Your task to perform on an android device: Open the map Image 0: 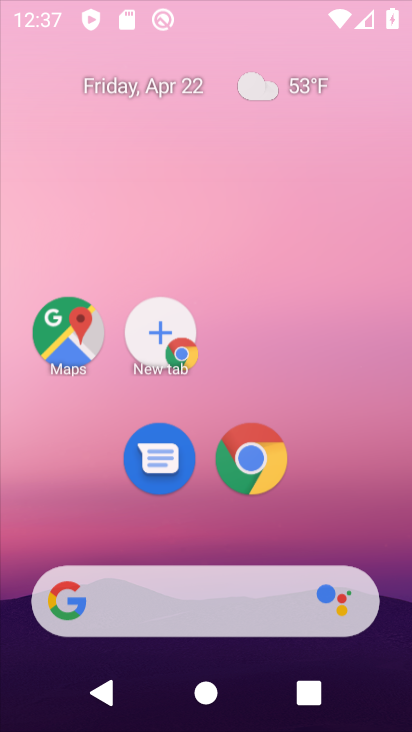
Step 0: click (262, 3)
Your task to perform on an android device: Open the map Image 1: 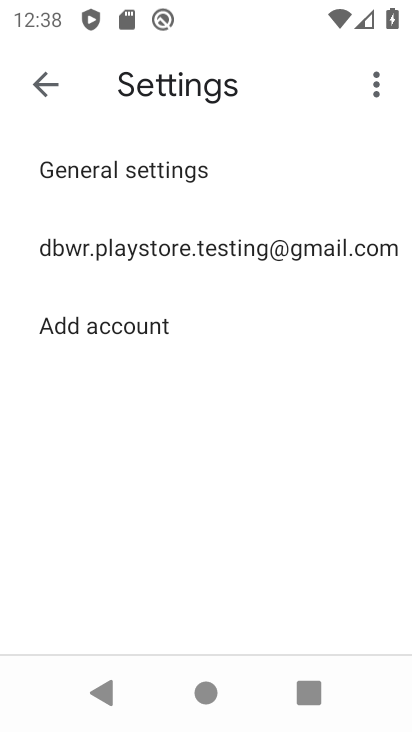
Step 1: press back button
Your task to perform on an android device: Open the map Image 2: 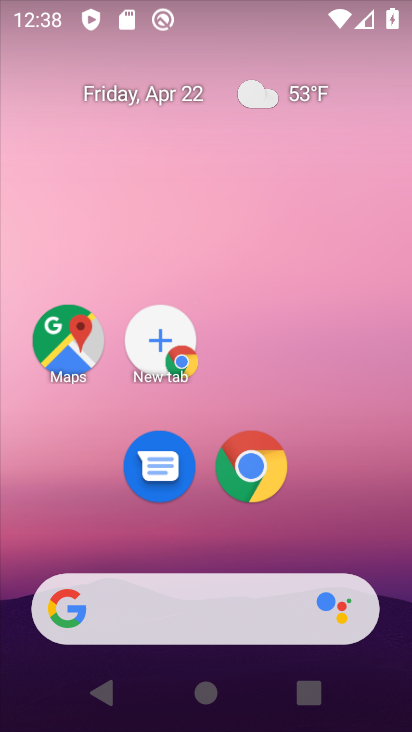
Step 2: click (63, 329)
Your task to perform on an android device: Open the map Image 3: 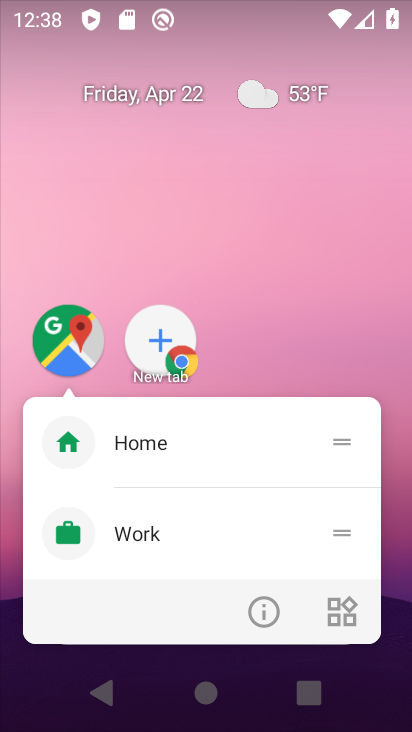
Step 3: click (65, 351)
Your task to perform on an android device: Open the map Image 4: 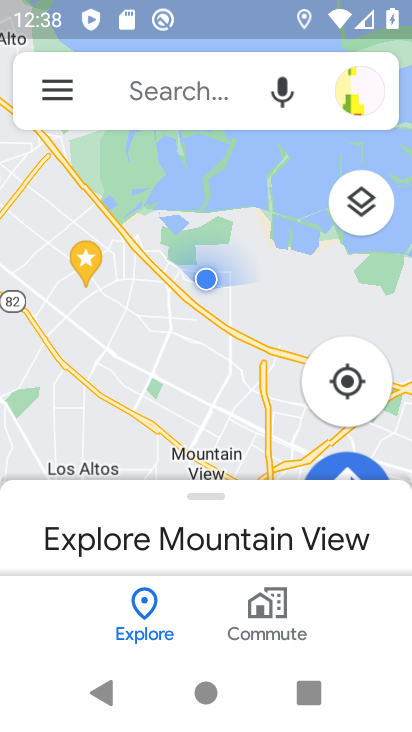
Step 4: task complete